Your task to perform on an android device: toggle wifi Image 0: 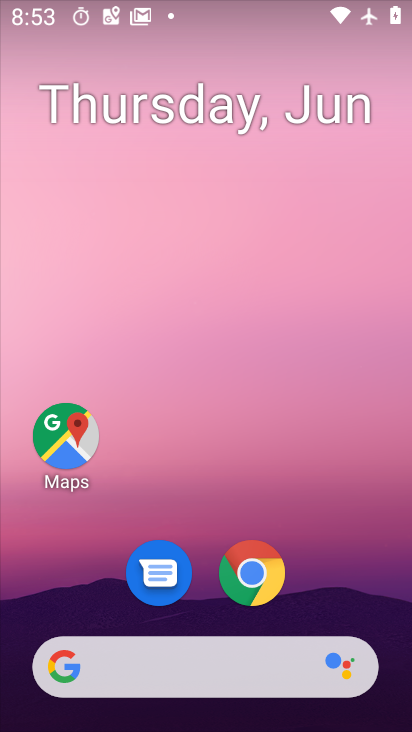
Step 0: drag from (311, 537) to (308, 250)
Your task to perform on an android device: toggle wifi Image 1: 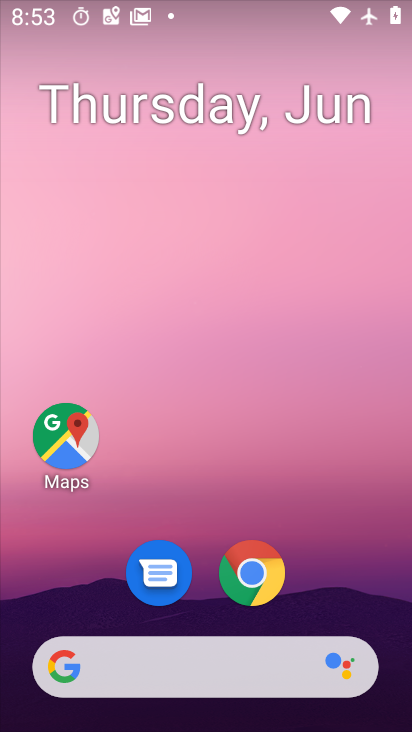
Step 1: drag from (221, 640) to (201, 184)
Your task to perform on an android device: toggle wifi Image 2: 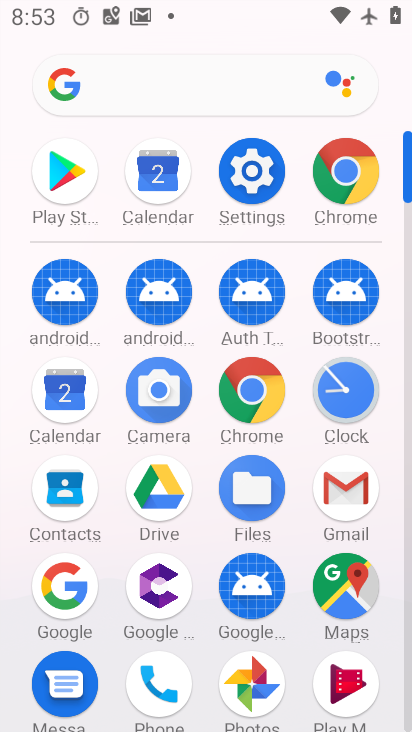
Step 2: click (251, 169)
Your task to perform on an android device: toggle wifi Image 3: 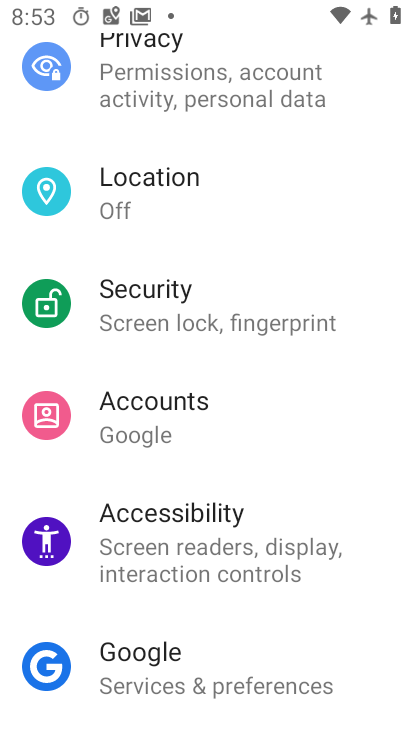
Step 3: click (242, 567)
Your task to perform on an android device: toggle wifi Image 4: 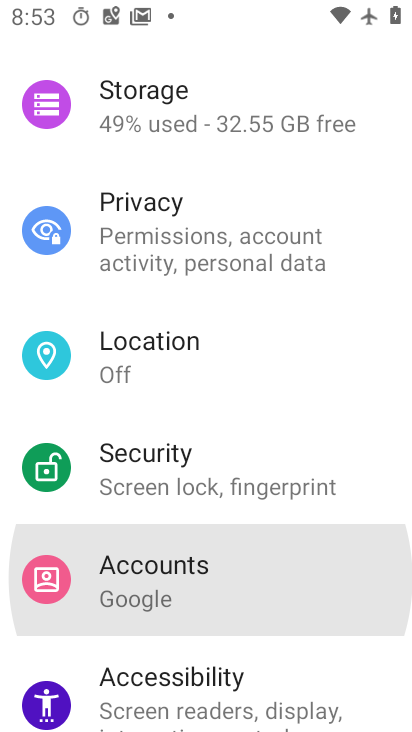
Step 4: drag from (219, 613) to (230, 272)
Your task to perform on an android device: toggle wifi Image 5: 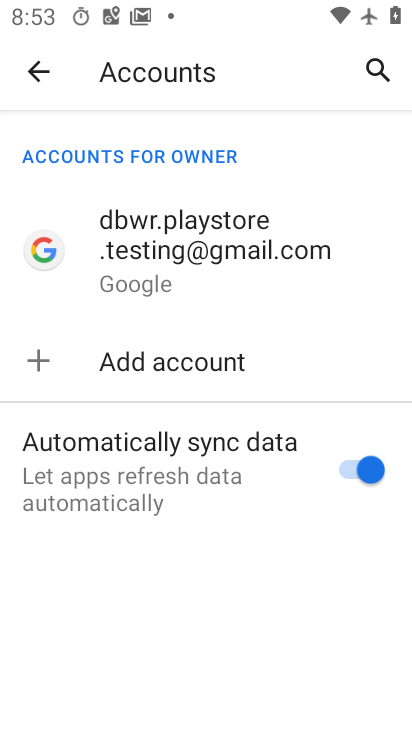
Step 5: click (63, 70)
Your task to perform on an android device: toggle wifi Image 6: 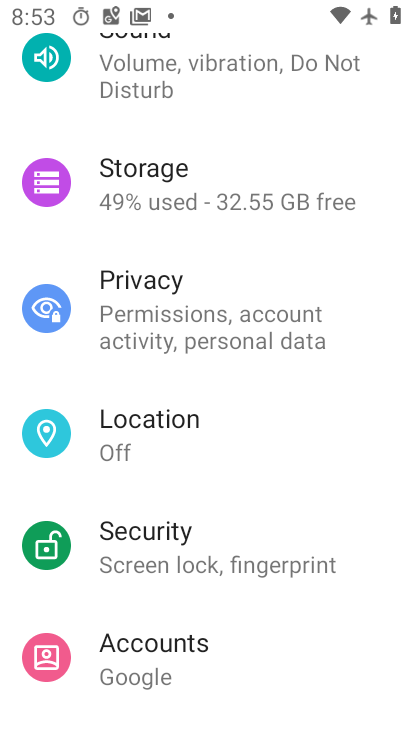
Step 6: drag from (220, 148) to (225, 647)
Your task to perform on an android device: toggle wifi Image 7: 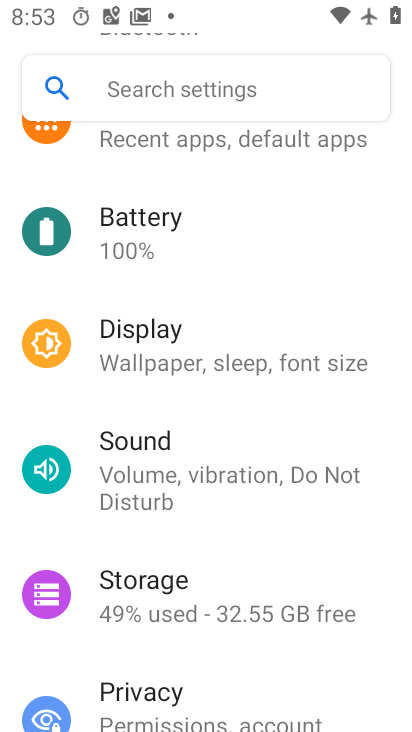
Step 7: drag from (181, 172) to (196, 565)
Your task to perform on an android device: toggle wifi Image 8: 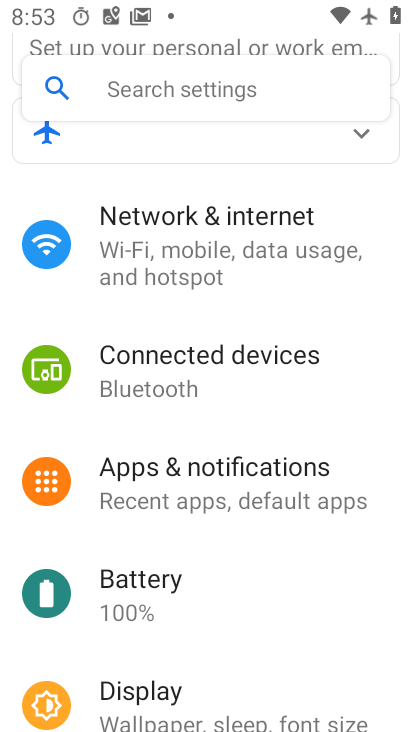
Step 8: click (166, 248)
Your task to perform on an android device: toggle wifi Image 9: 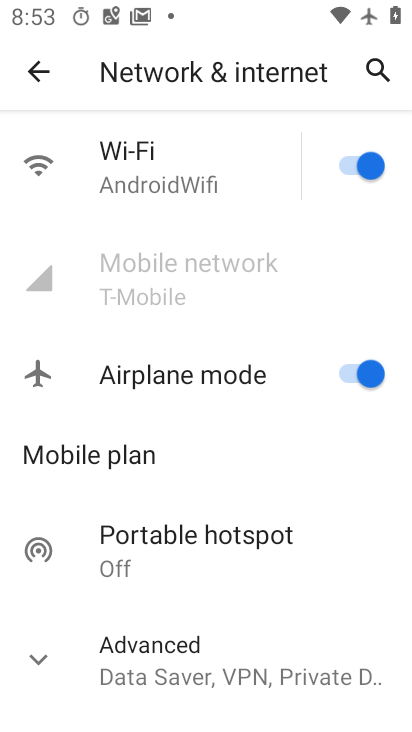
Step 9: click (351, 147)
Your task to perform on an android device: toggle wifi Image 10: 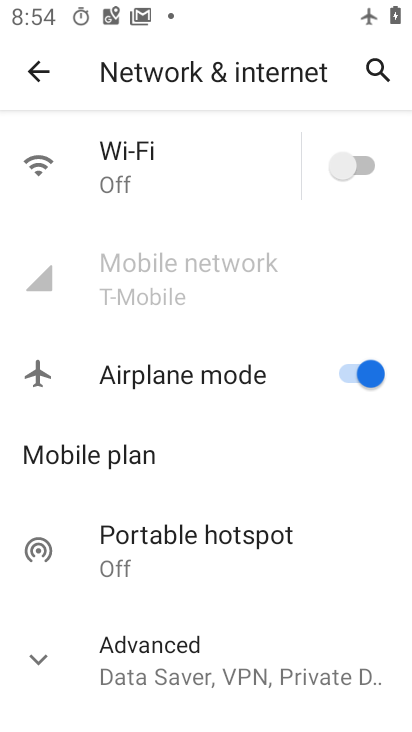
Step 10: task complete